Your task to perform on an android device: When is my next appointment? Image 0: 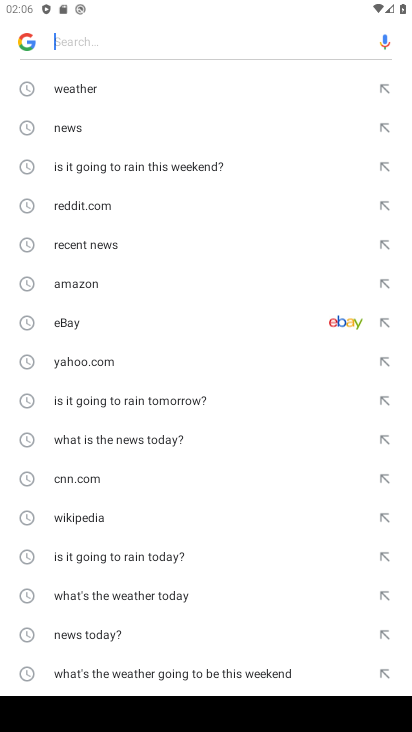
Step 0: press home button
Your task to perform on an android device: When is my next appointment? Image 1: 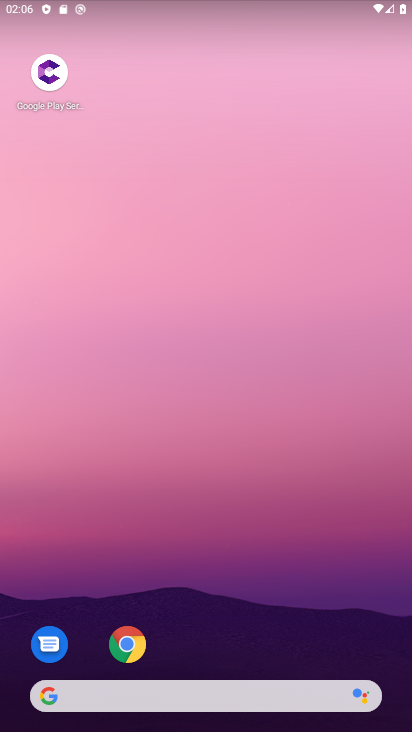
Step 1: drag from (203, 542) to (350, 26)
Your task to perform on an android device: When is my next appointment? Image 2: 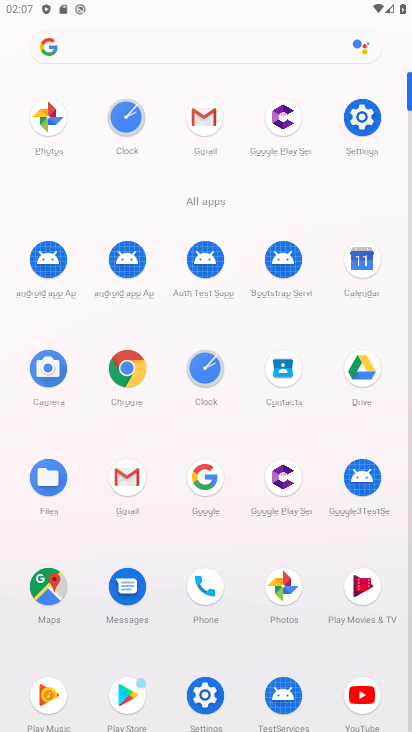
Step 2: click (364, 274)
Your task to perform on an android device: When is my next appointment? Image 3: 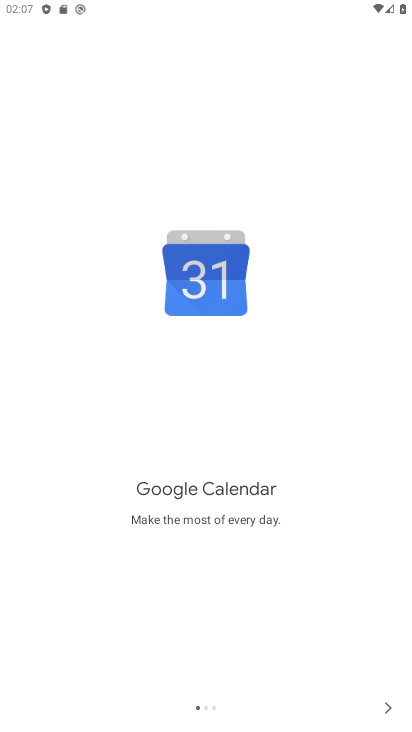
Step 3: click (401, 701)
Your task to perform on an android device: When is my next appointment? Image 4: 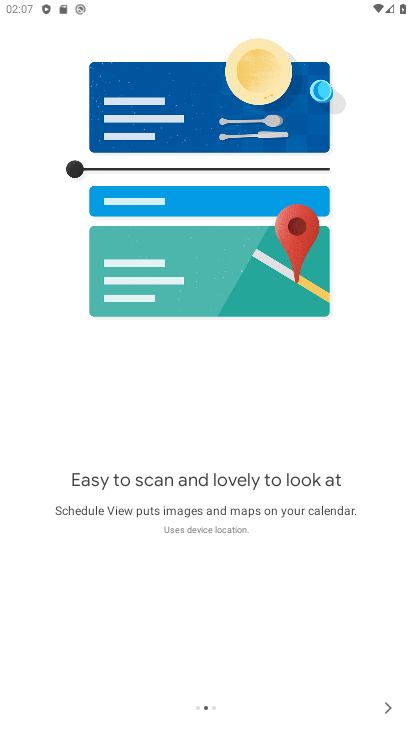
Step 4: click (381, 713)
Your task to perform on an android device: When is my next appointment? Image 5: 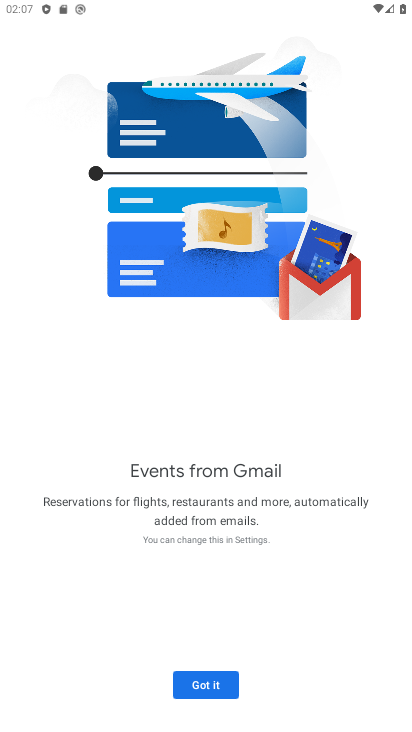
Step 5: click (192, 685)
Your task to perform on an android device: When is my next appointment? Image 6: 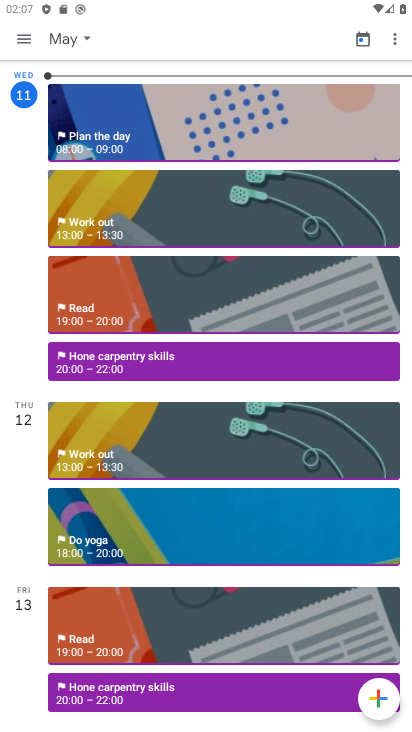
Step 6: click (118, 453)
Your task to perform on an android device: When is my next appointment? Image 7: 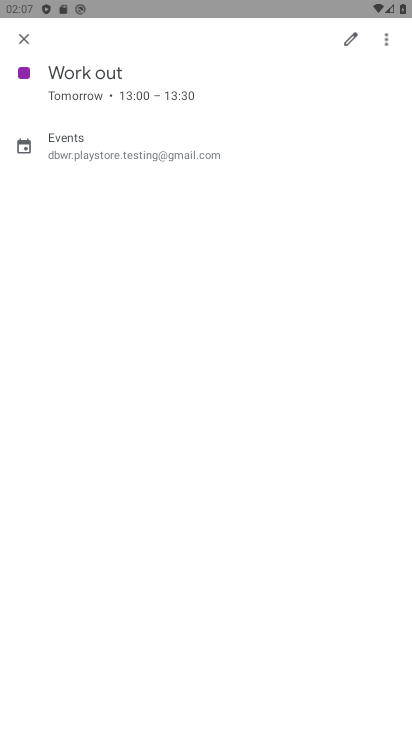
Step 7: task complete